Your task to perform on an android device: Open sound settings Image 0: 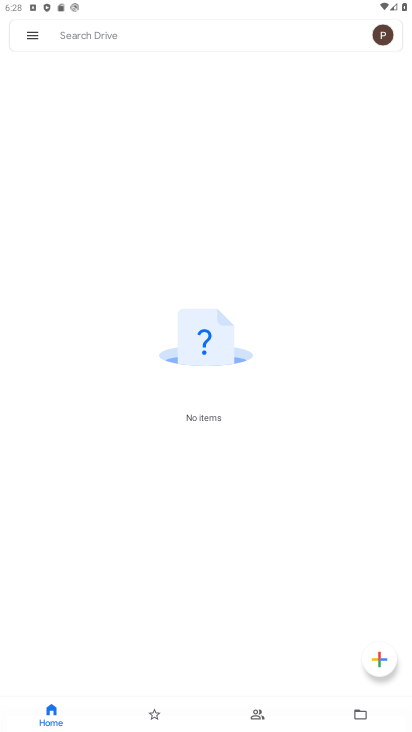
Step 0: press home button
Your task to perform on an android device: Open sound settings Image 1: 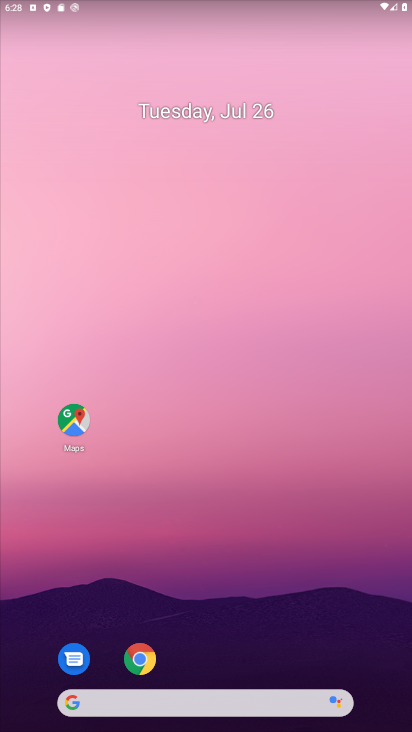
Step 1: drag from (235, 612) to (242, 290)
Your task to perform on an android device: Open sound settings Image 2: 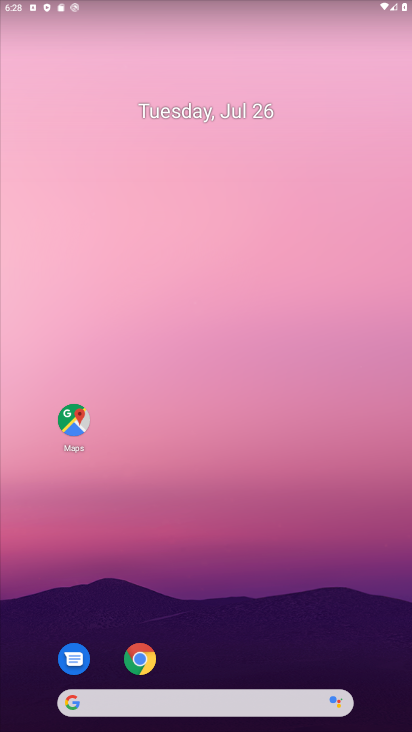
Step 2: drag from (228, 602) to (206, 318)
Your task to perform on an android device: Open sound settings Image 3: 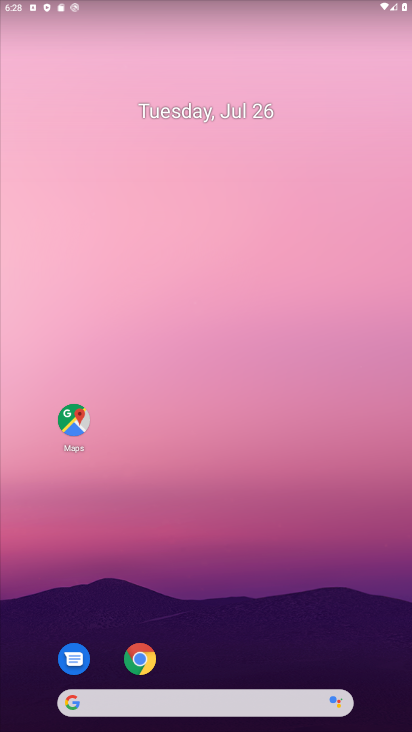
Step 3: drag from (255, 555) to (230, 48)
Your task to perform on an android device: Open sound settings Image 4: 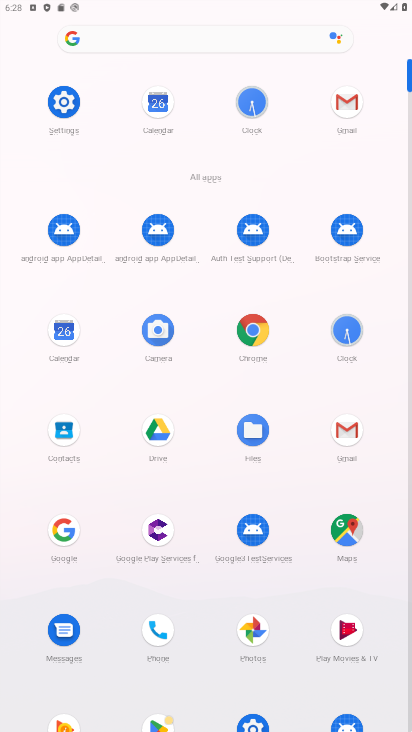
Step 4: click (247, 723)
Your task to perform on an android device: Open sound settings Image 5: 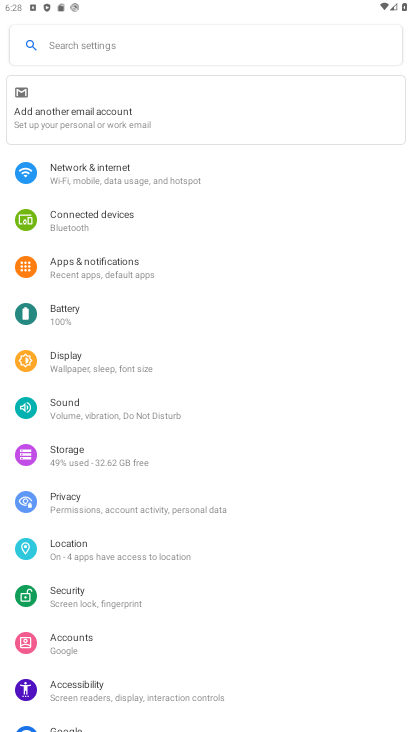
Step 5: click (86, 414)
Your task to perform on an android device: Open sound settings Image 6: 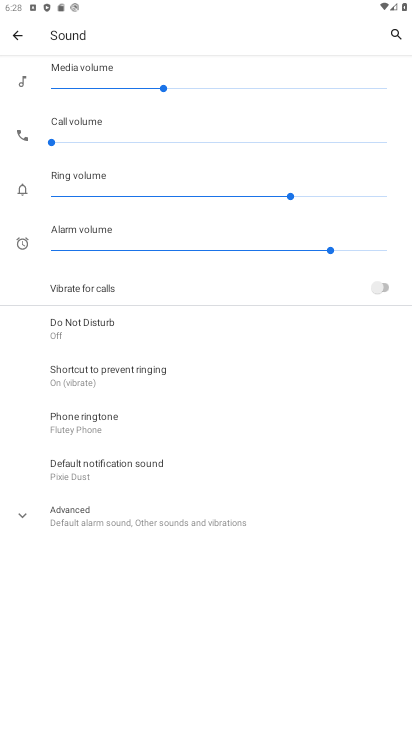
Step 6: task complete